Your task to perform on an android device: Check the news Image 0: 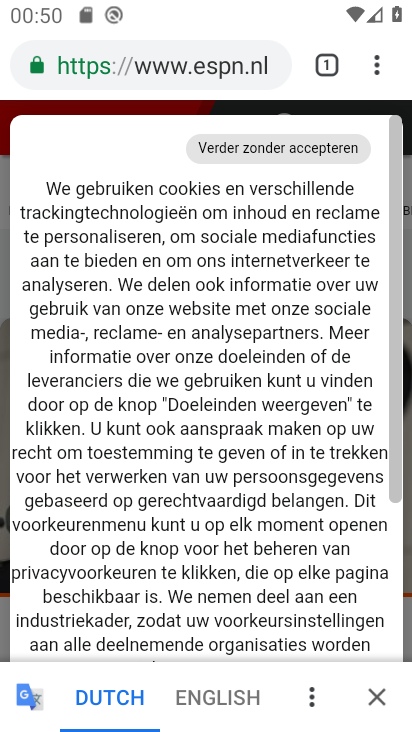
Step 0: press home button
Your task to perform on an android device: Check the news Image 1: 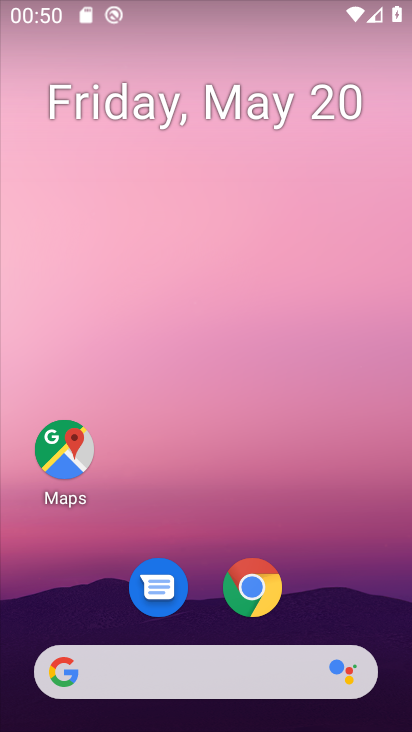
Step 1: task complete